Your task to perform on an android device: Is it going to rain this weekend? Image 0: 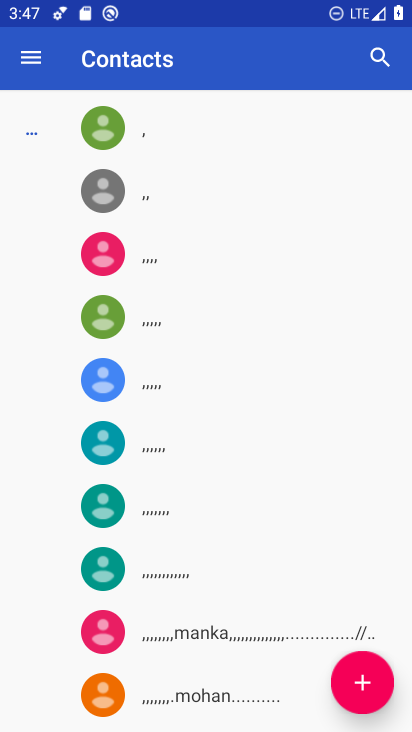
Step 0: press home button
Your task to perform on an android device: Is it going to rain this weekend? Image 1: 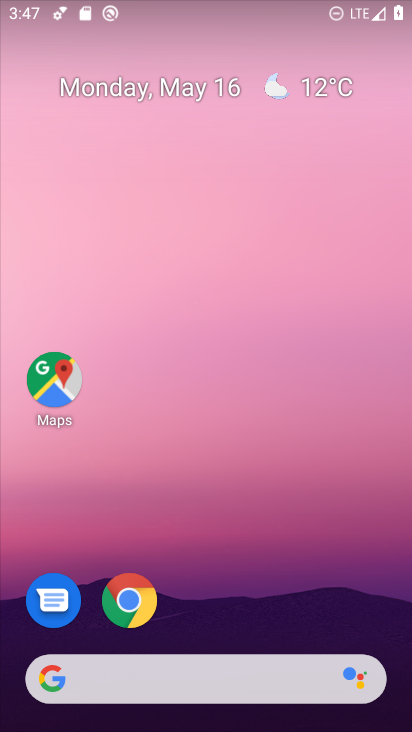
Step 1: click (326, 82)
Your task to perform on an android device: Is it going to rain this weekend? Image 2: 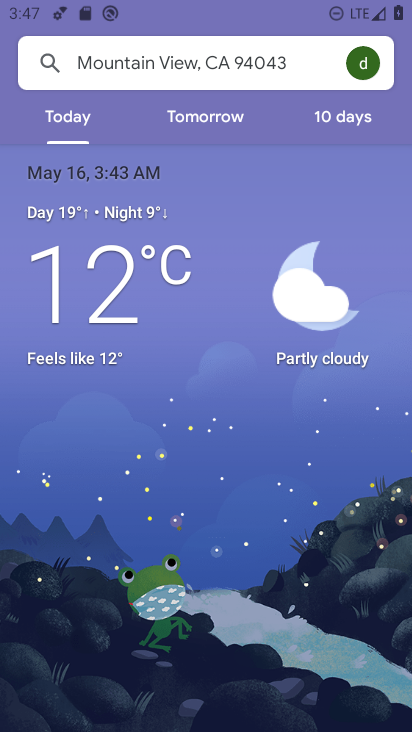
Step 2: click (332, 119)
Your task to perform on an android device: Is it going to rain this weekend? Image 3: 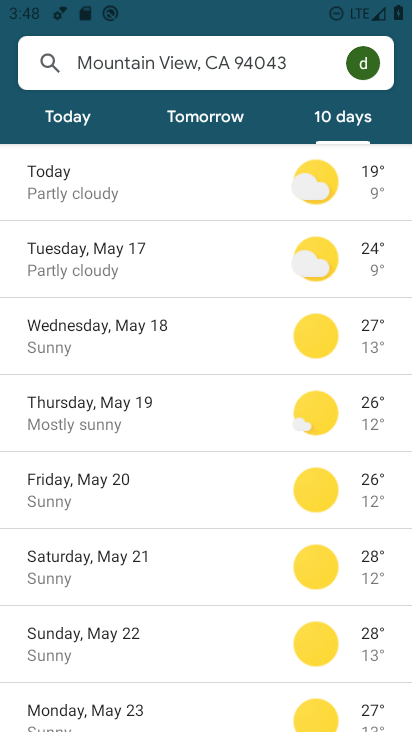
Step 3: task complete